Your task to perform on an android device: create a new album in the google photos Image 0: 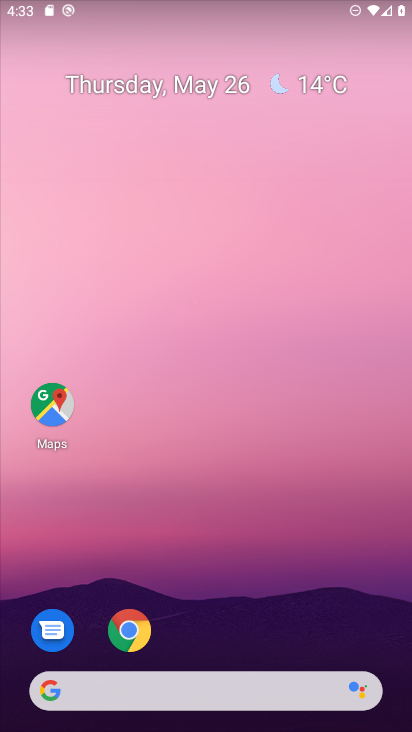
Step 0: drag from (257, 620) to (199, 98)
Your task to perform on an android device: create a new album in the google photos Image 1: 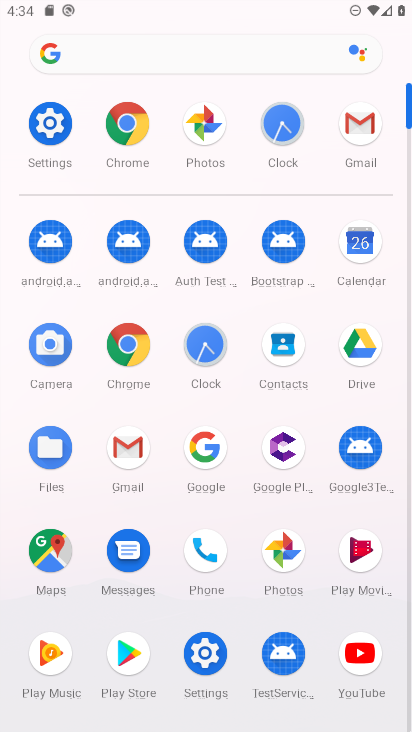
Step 1: click (205, 124)
Your task to perform on an android device: create a new album in the google photos Image 2: 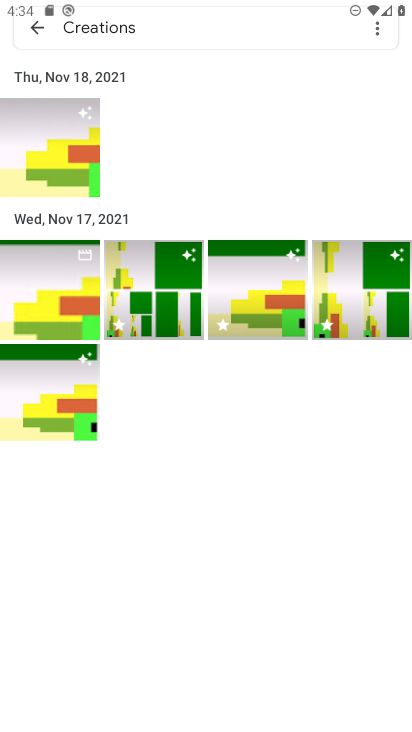
Step 2: press back button
Your task to perform on an android device: create a new album in the google photos Image 3: 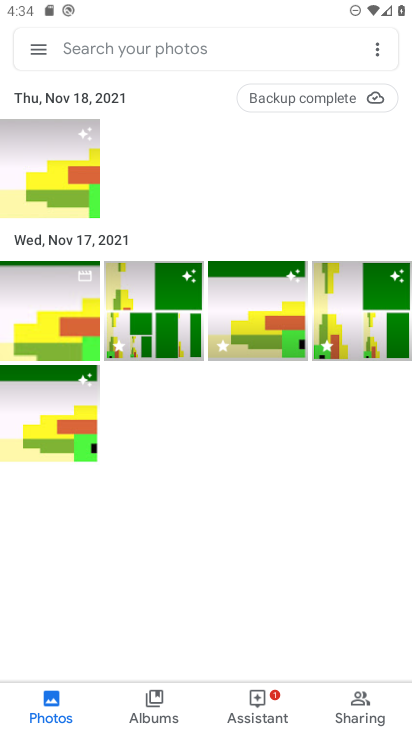
Step 3: click (379, 49)
Your task to perform on an android device: create a new album in the google photos Image 4: 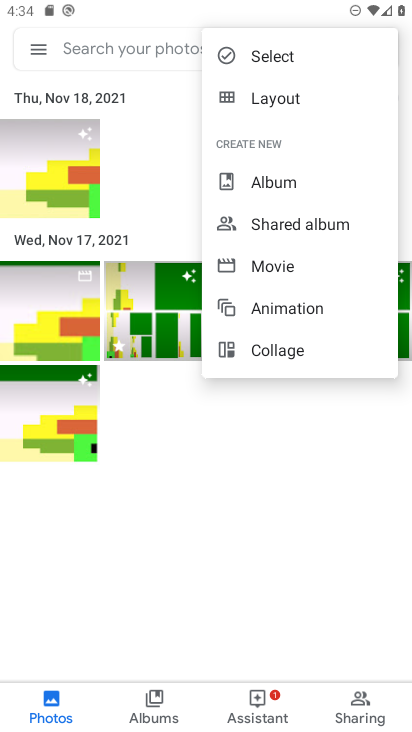
Step 4: click (245, 185)
Your task to perform on an android device: create a new album in the google photos Image 5: 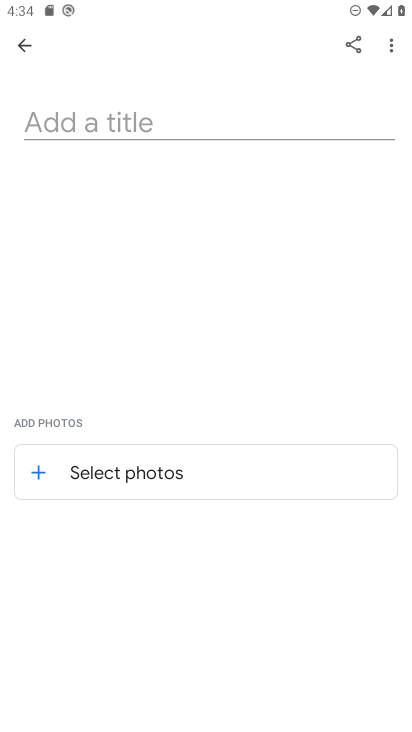
Step 5: click (242, 120)
Your task to perform on an android device: create a new album in the google photos Image 6: 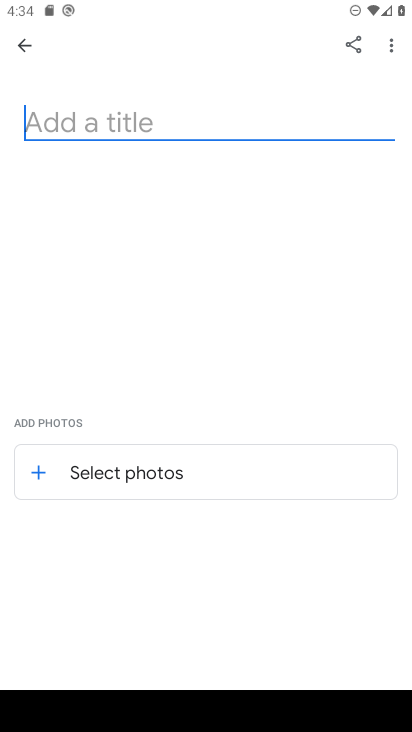
Step 6: type "chulbul"
Your task to perform on an android device: create a new album in the google photos Image 7: 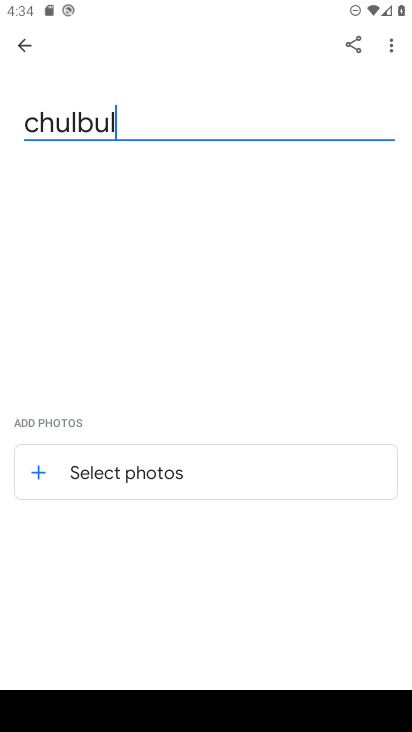
Step 7: click (37, 474)
Your task to perform on an android device: create a new album in the google photos Image 8: 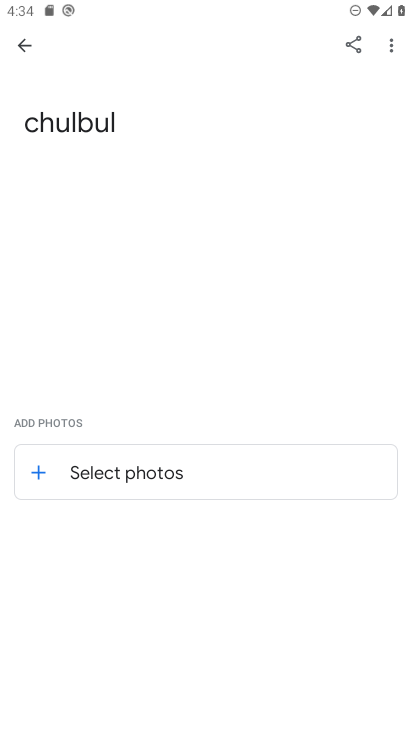
Step 8: click (37, 474)
Your task to perform on an android device: create a new album in the google photos Image 9: 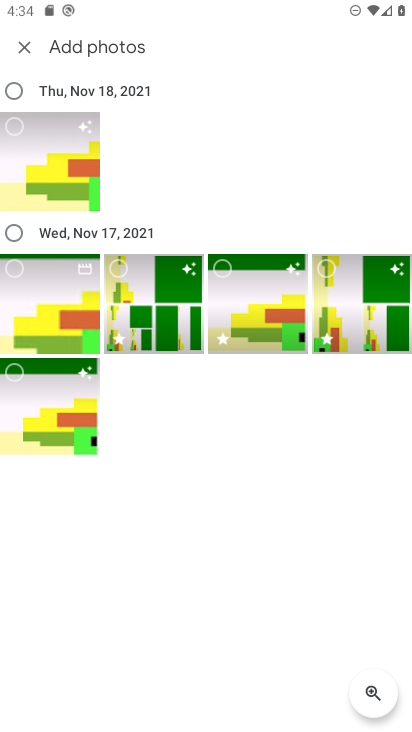
Step 9: click (16, 96)
Your task to perform on an android device: create a new album in the google photos Image 10: 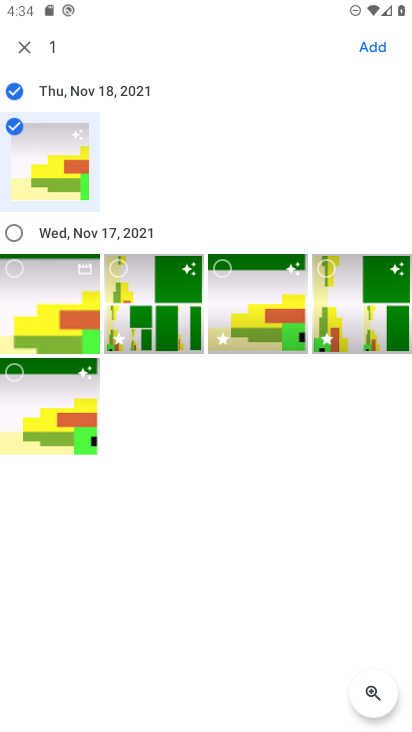
Step 10: click (373, 50)
Your task to perform on an android device: create a new album in the google photos Image 11: 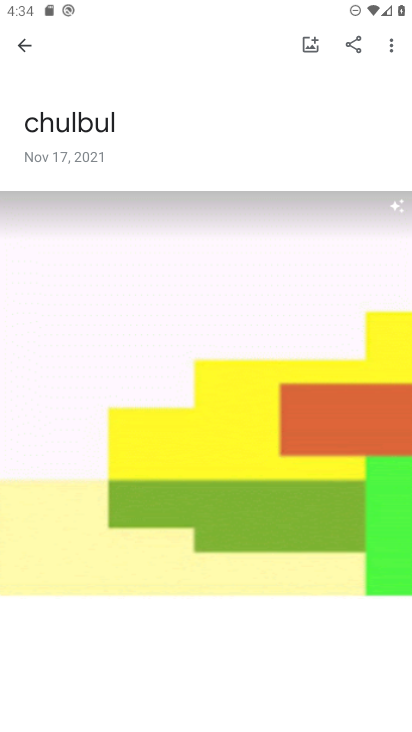
Step 11: task complete